Your task to perform on an android device: Open wifi settings Image 0: 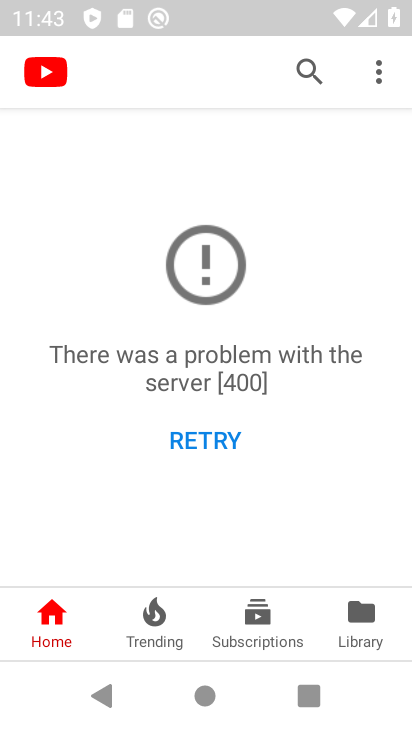
Step 0: press back button
Your task to perform on an android device: Open wifi settings Image 1: 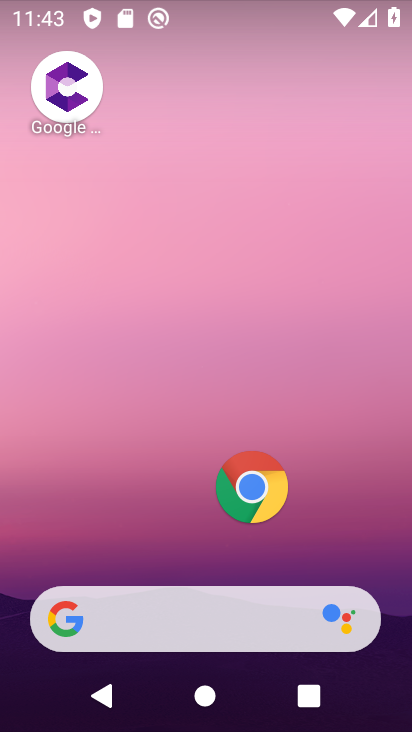
Step 1: drag from (210, 719) to (217, 46)
Your task to perform on an android device: Open wifi settings Image 2: 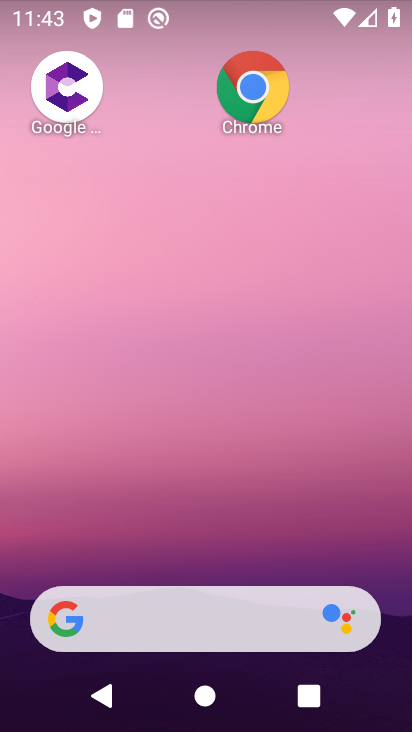
Step 2: drag from (202, 724) to (212, 34)
Your task to perform on an android device: Open wifi settings Image 3: 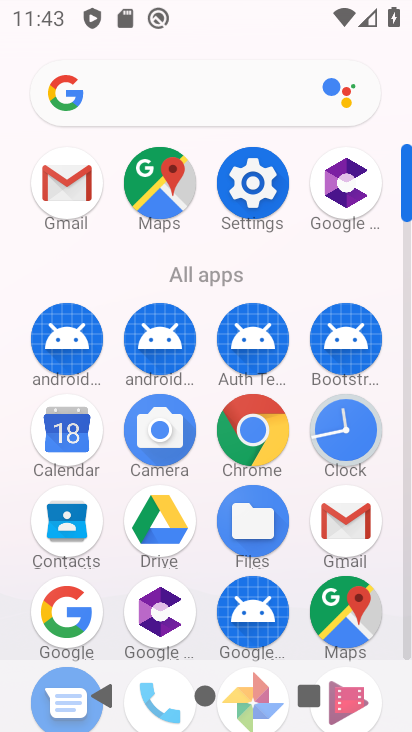
Step 3: click (247, 187)
Your task to perform on an android device: Open wifi settings Image 4: 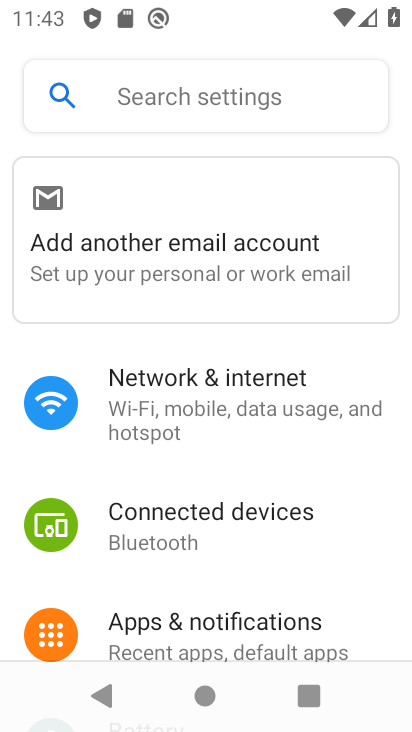
Step 4: click (191, 396)
Your task to perform on an android device: Open wifi settings Image 5: 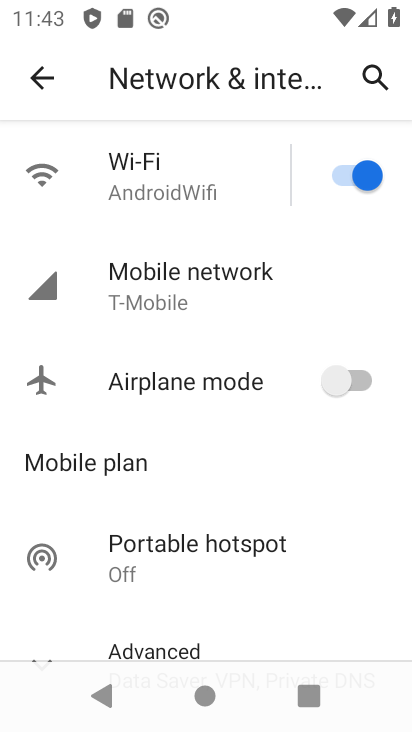
Step 5: click (145, 173)
Your task to perform on an android device: Open wifi settings Image 6: 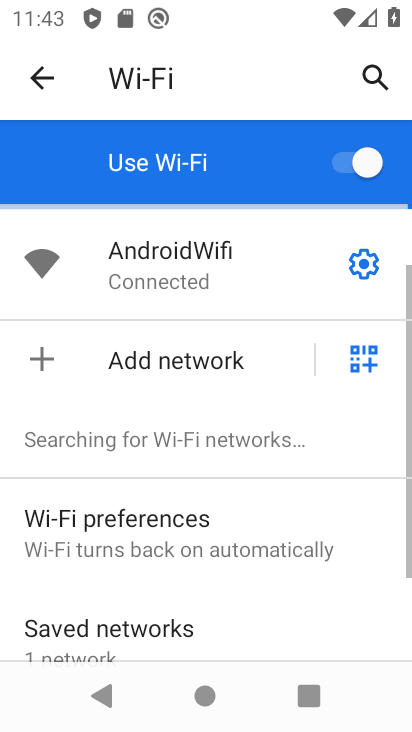
Step 6: click (361, 259)
Your task to perform on an android device: Open wifi settings Image 7: 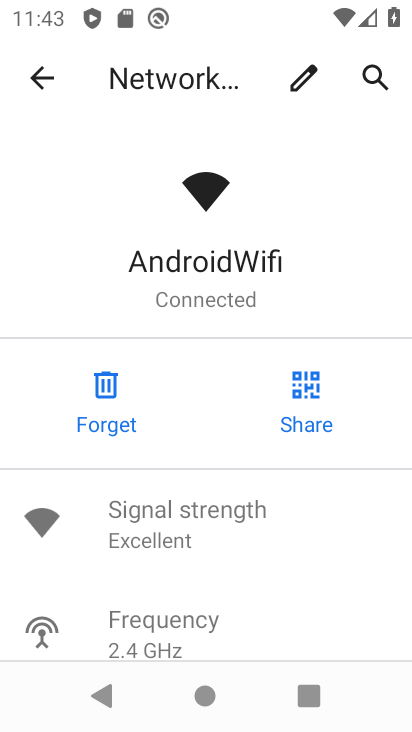
Step 7: task complete